Your task to perform on an android device: toggle translation in the chrome app Image 0: 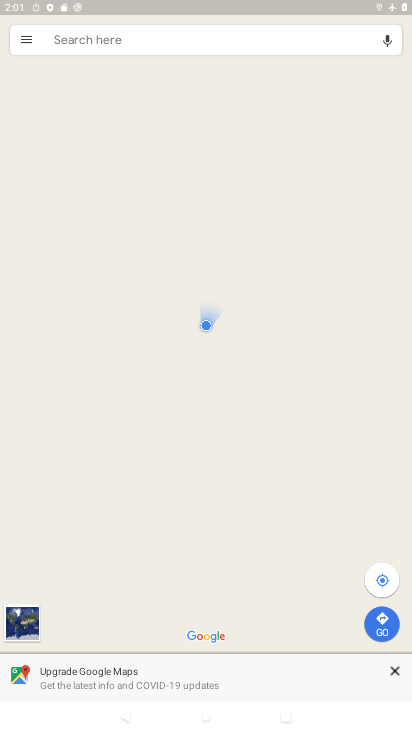
Step 0: press home button
Your task to perform on an android device: toggle translation in the chrome app Image 1: 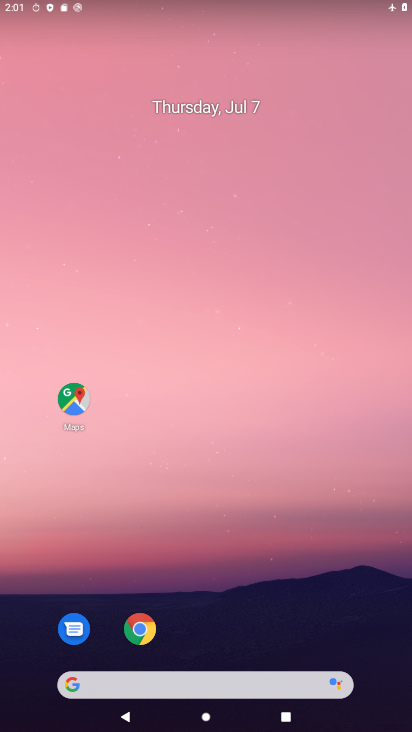
Step 1: drag from (318, 606) to (394, 11)
Your task to perform on an android device: toggle translation in the chrome app Image 2: 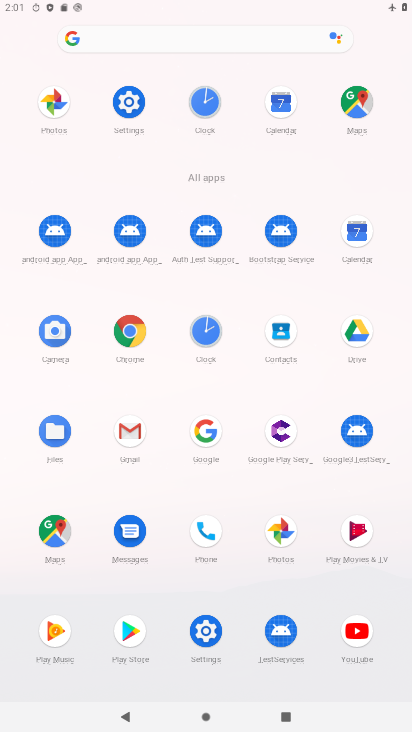
Step 2: click (127, 327)
Your task to perform on an android device: toggle translation in the chrome app Image 3: 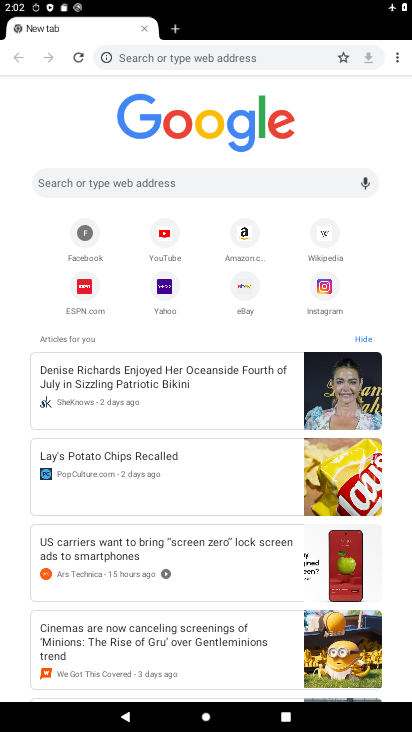
Step 3: drag from (399, 50) to (298, 262)
Your task to perform on an android device: toggle translation in the chrome app Image 4: 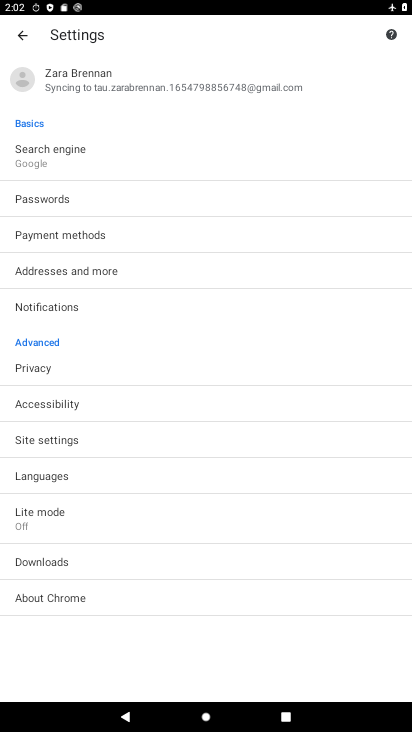
Step 4: click (29, 475)
Your task to perform on an android device: toggle translation in the chrome app Image 5: 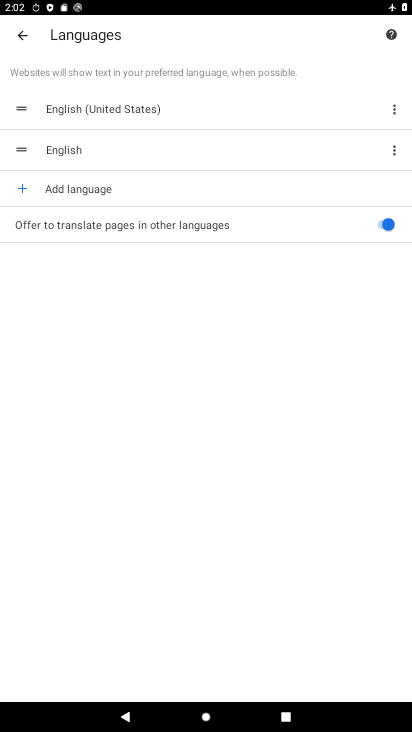
Step 5: click (388, 218)
Your task to perform on an android device: toggle translation in the chrome app Image 6: 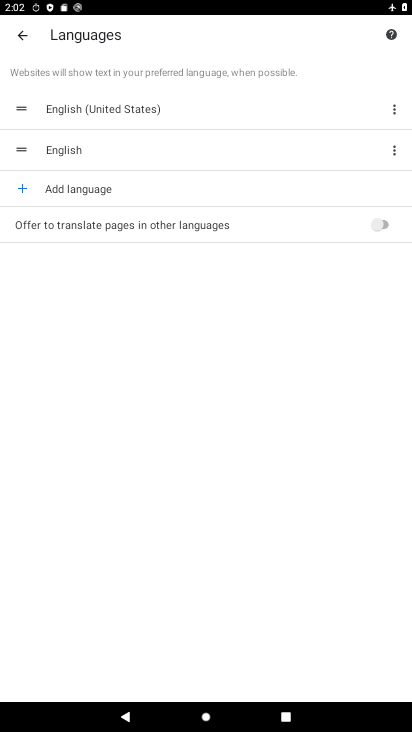
Step 6: task complete